Your task to perform on an android device: turn off location history Image 0: 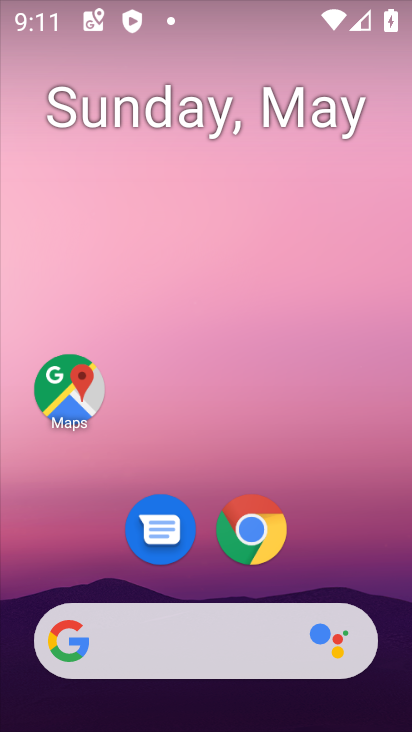
Step 0: drag from (355, 555) to (357, 105)
Your task to perform on an android device: turn off location history Image 1: 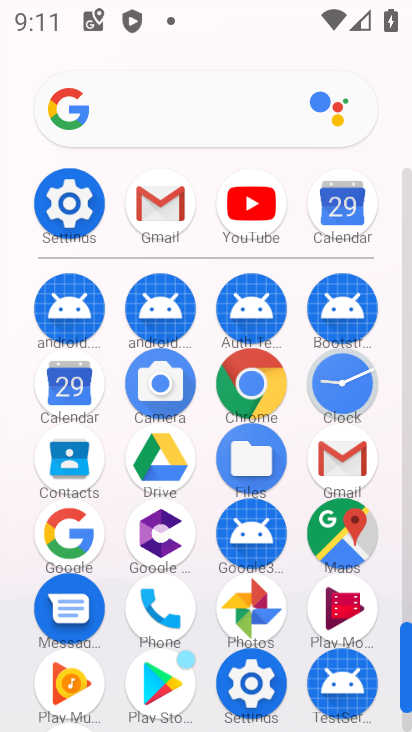
Step 1: click (74, 227)
Your task to perform on an android device: turn off location history Image 2: 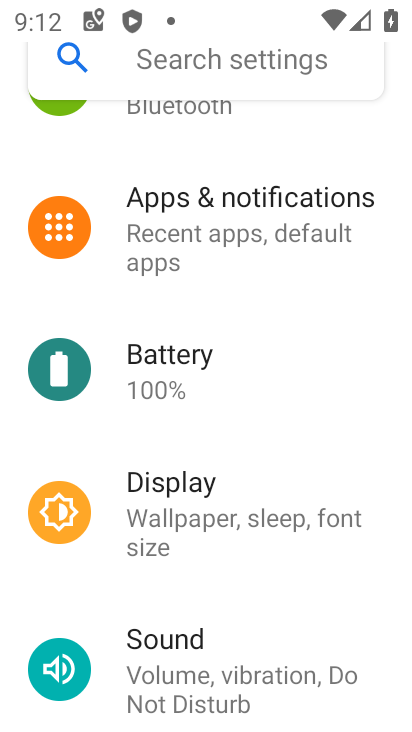
Step 2: drag from (170, 645) to (175, 473)
Your task to perform on an android device: turn off location history Image 3: 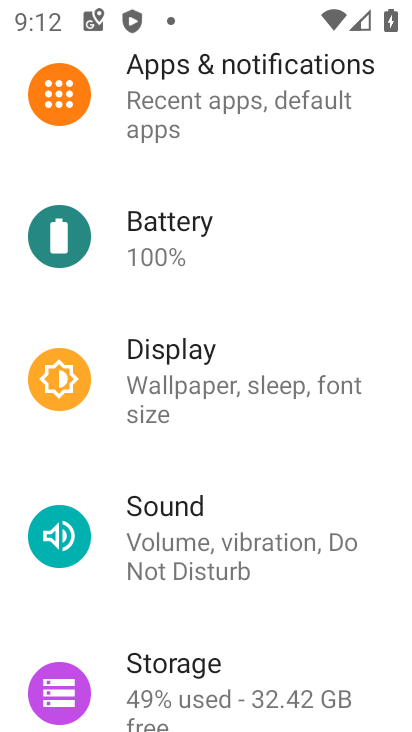
Step 3: drag from (244, 602) to (271, 221)
Your task to perform on an android device: turn off location history Image 4: 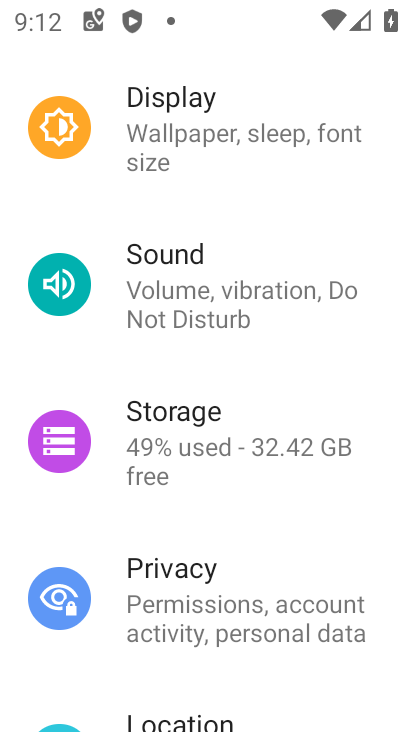
Step 4: drag from (163, 648) to (229, 358)
Your task to perform on an android device: turn off location history Image 5: 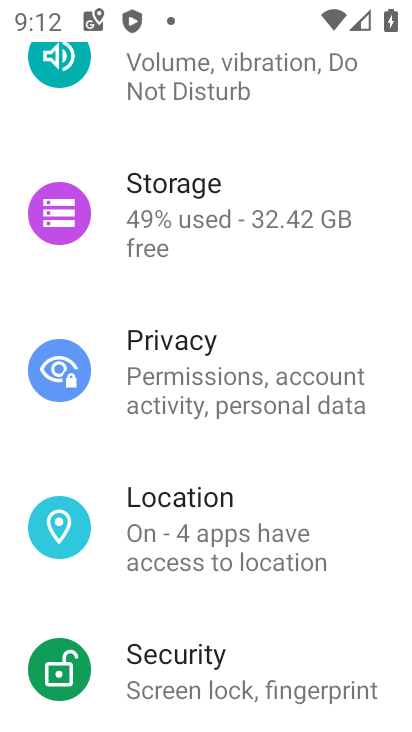
Step 5: click (226, 538)
Your task to perform on an android device: turn off location history Image 6: 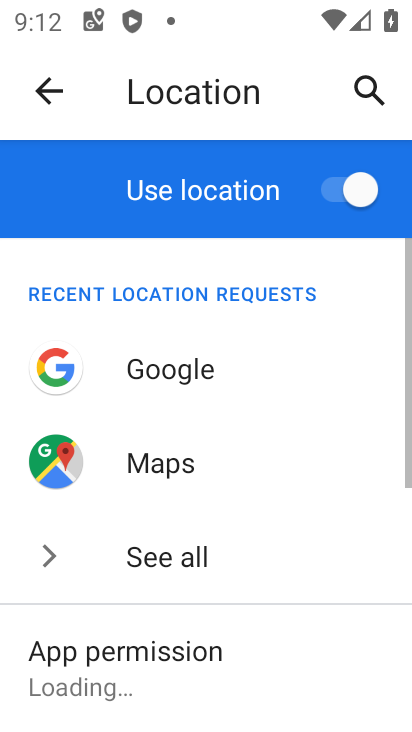
Step 6: task complete